Your task to perform on an android device: check android version Image 0: 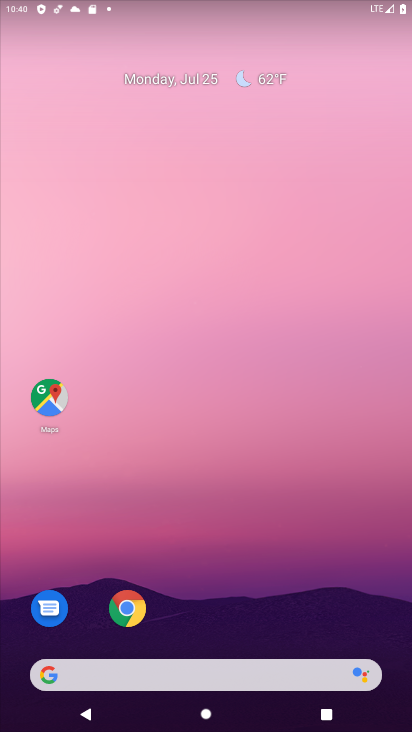
Step 0: drag from (210, 639) to (242, 33)
Your task to perform on an android device: check android version Image 1: 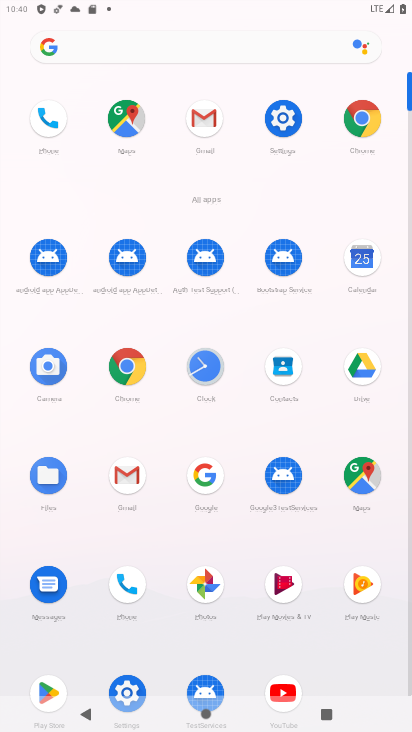
Step 1: click (123, 684)
Your task to perform on an android device: check android version Image 2: 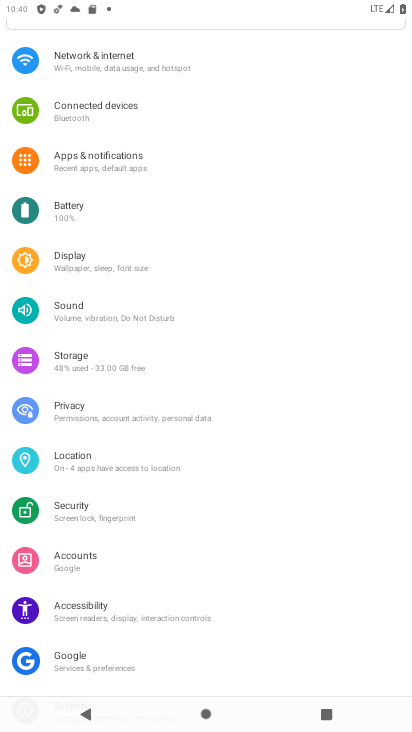
Step 2: drag from (104, 577) to (131, 307)
Your task to perform on an android device: check android version Image 3: 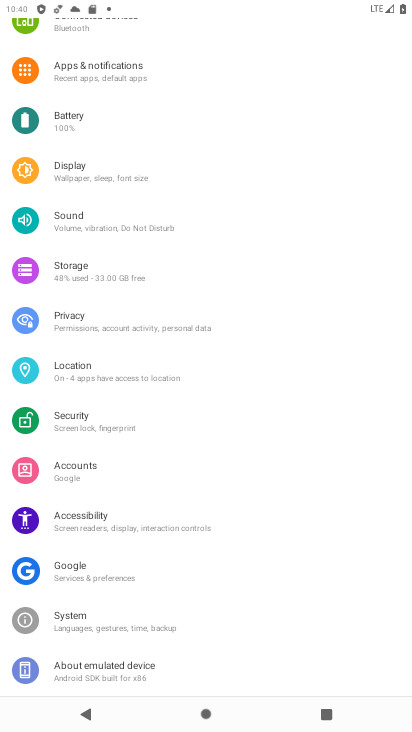
Step 3: click (93, 669)
Your task to perform on an android device: check android version Image 4: 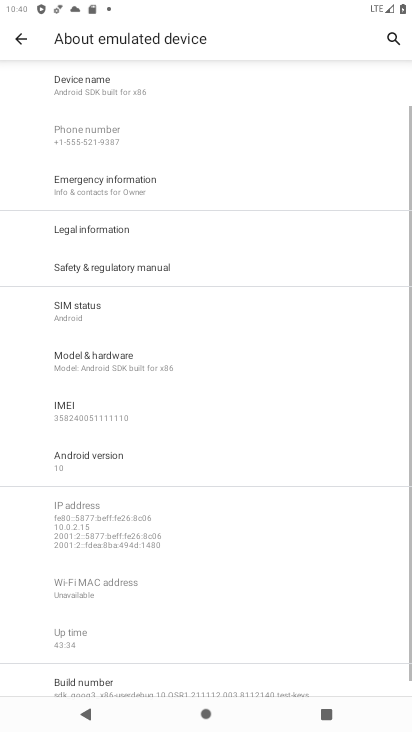
Step 4: click (122, 466)
Your task to perform on an android device: check android version Image 5: 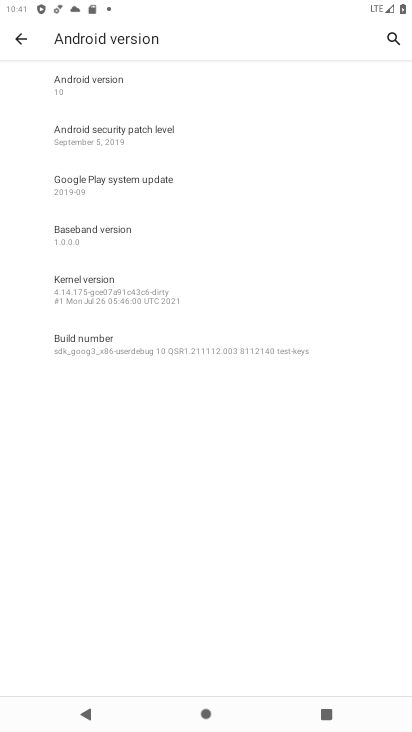
Step 5: task complete